Your task to perform on an android device: turn on location history Image 0: 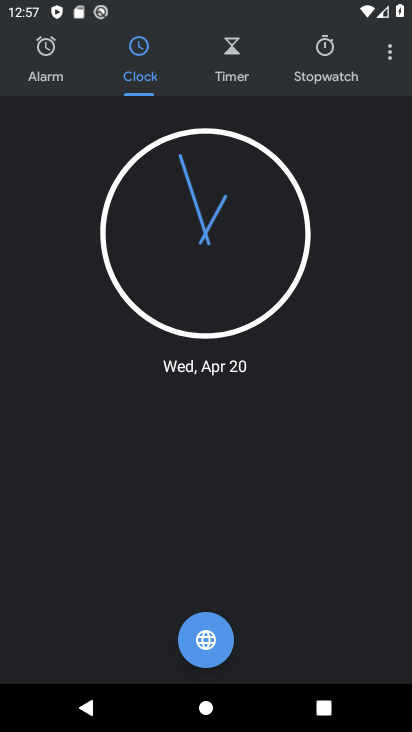
Step 0: press home button
Your task to perform on an android device: turn on location history Image 1: 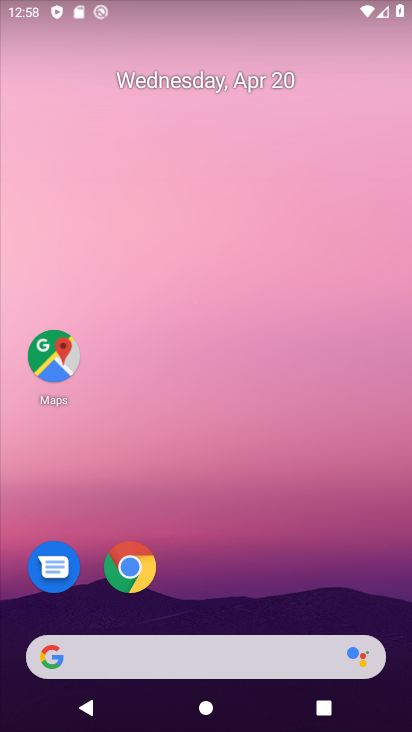
Step 1: drag from (274, 548) to (295, 98)
Your task to perform on an android device: turn on location history Image 2: 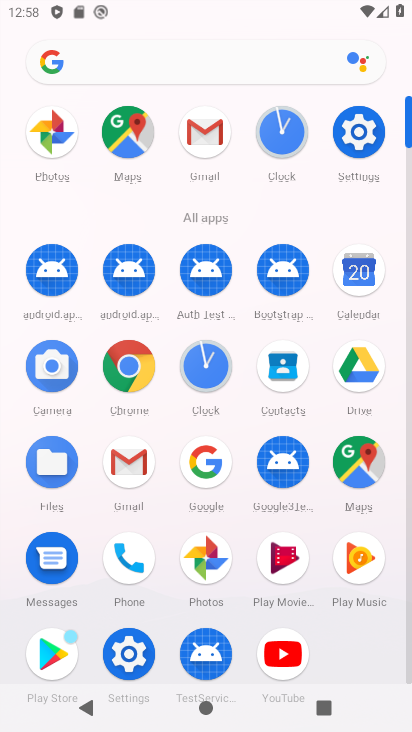
Step 2: click (353, 462)
Your task to perform on an android device: turn on location history Image 3: 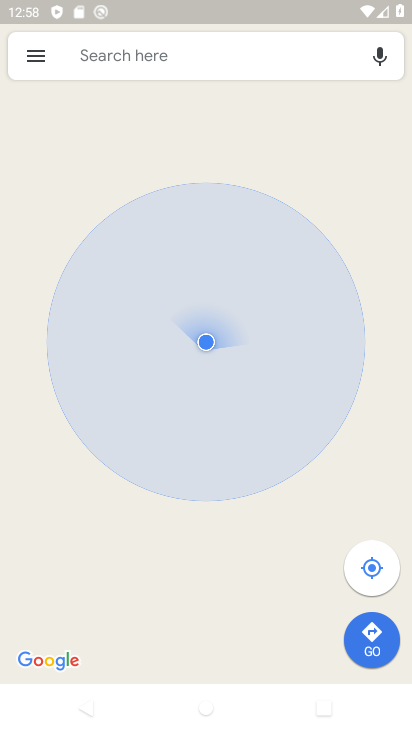
Step 3: click (30, 53)
Your task to perform on an android device: turn on location history Image 4: 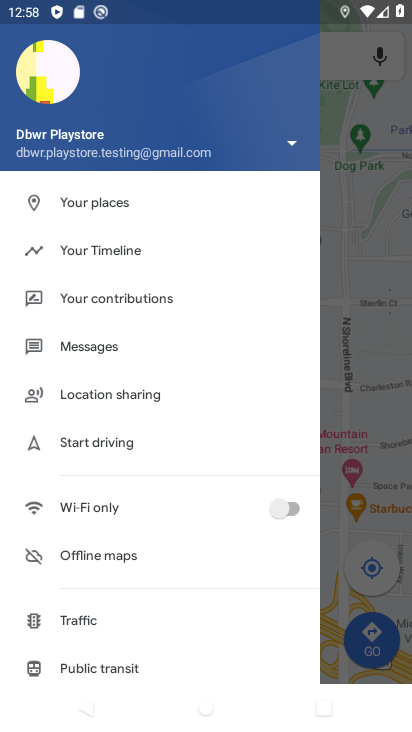
Step 4: click (116, 246)
Your task to perform on an android device: turn on location history Image 5: 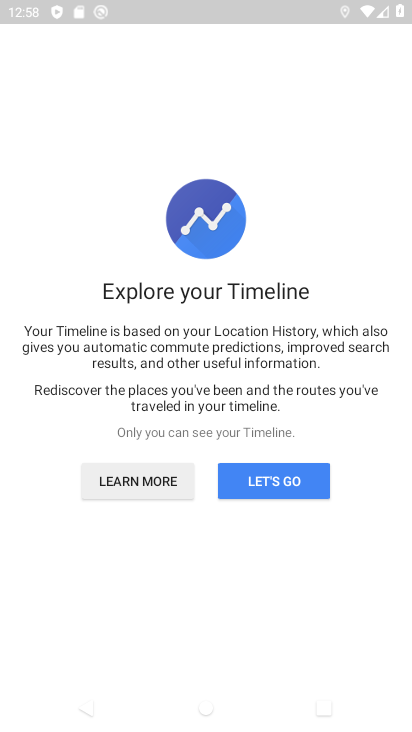
Step 5: click (293, 481)
Your task to perform on an android device: turn on location history Image 6: 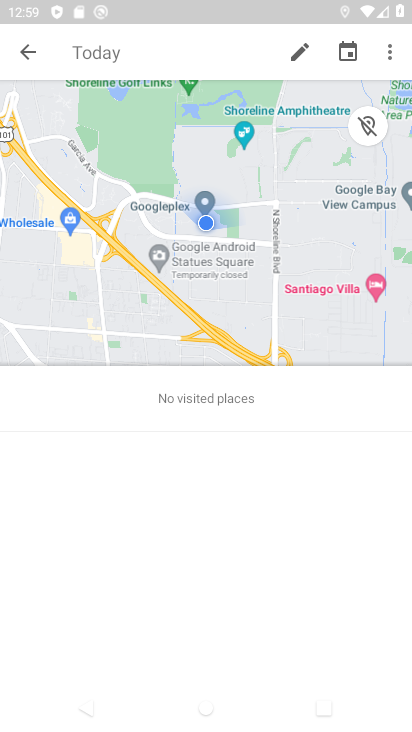
Step 6: click (388, 49)
Your task to perform on an android device: turn on location history Image 7: 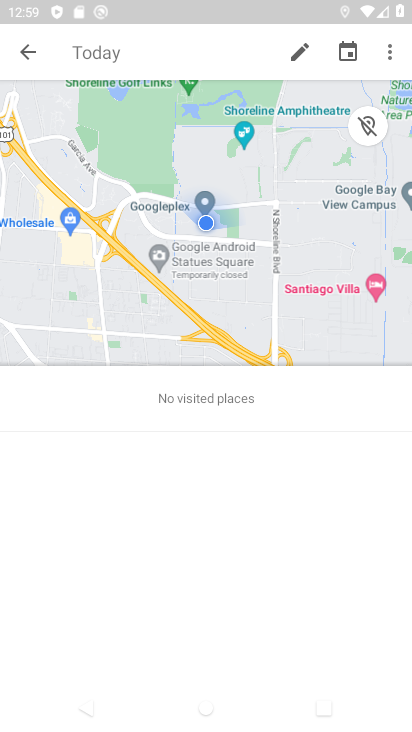
Step 7: click (388, 54)
Your task to perform on an android device: turn on location history Image 8: 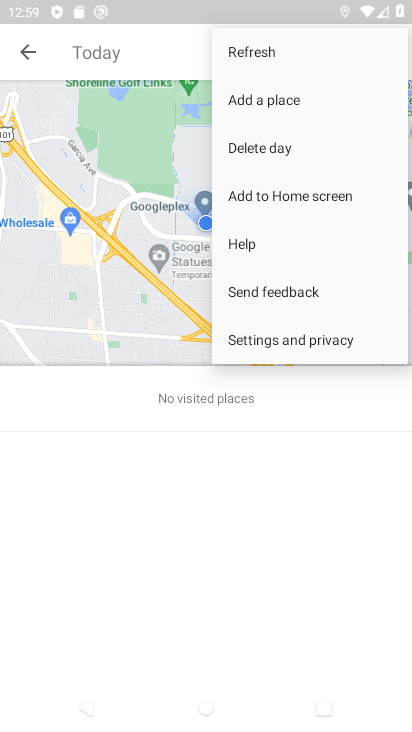
Step 8: click (312, 335)
Your task to perform on an android device: turn on location history Image 9: 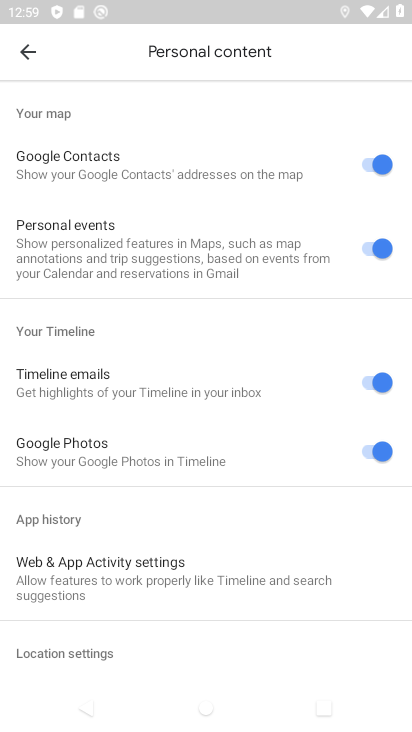
Step 9: drag from (283, 545) to (309, 100)
Your task to perform on an android device: turn on location history Image 10: 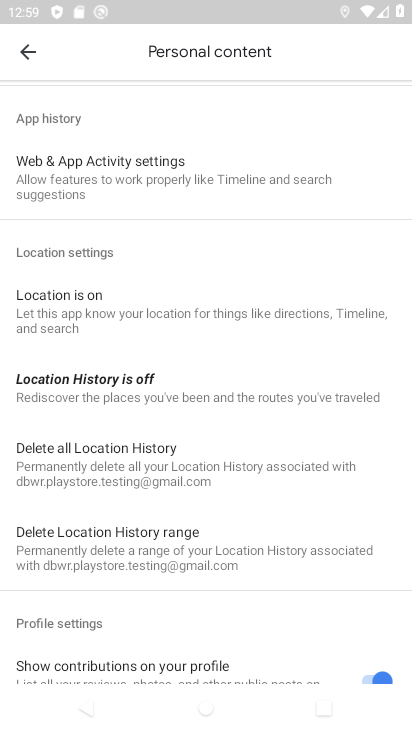
Step 10: click (111, 383)
Your task to perform on an android device: turn on location history Image 11: 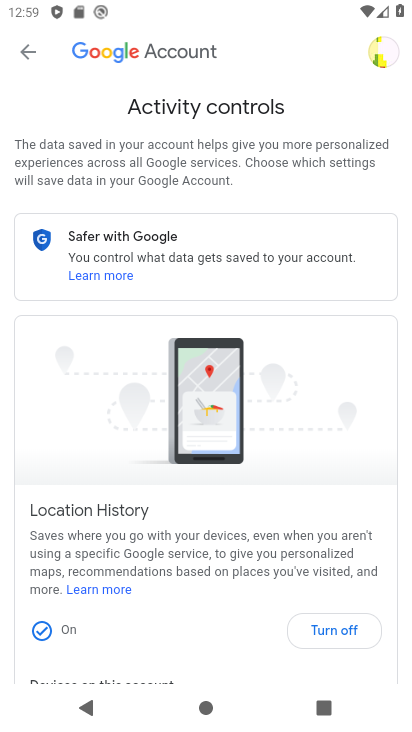
Step 11: task complete